Your task to perform on an android device: Go to notification settings Image 0: 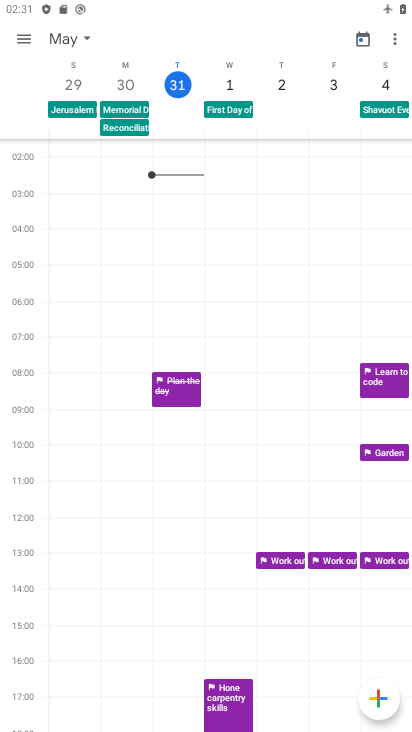
Step 0: press home button
Your task to perform on an android device: Go to notification settings Image 1: 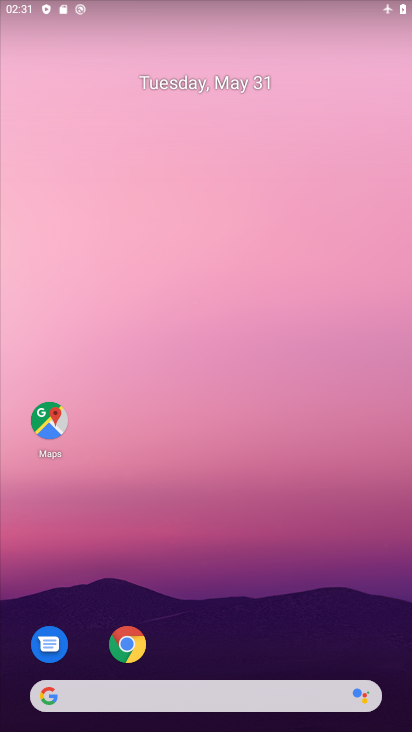
Step 1: drag from (263, 565) to (281, 25)
Your task to perform on an android device: Go to notification settings Image 2: 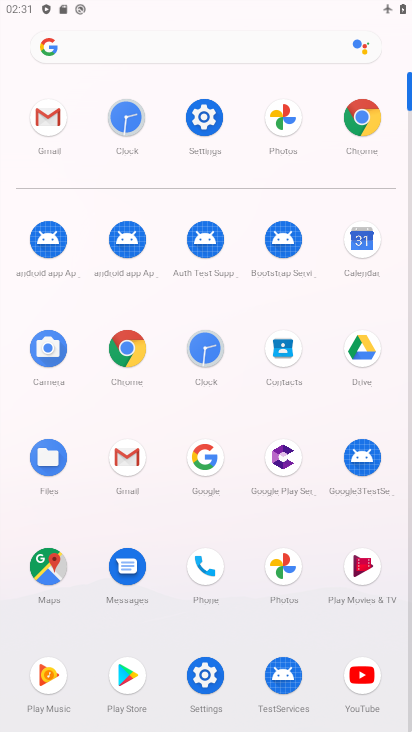
Step 2: click (205, 115)
Your task to perform on an android device: Go to notification settings Image 3: 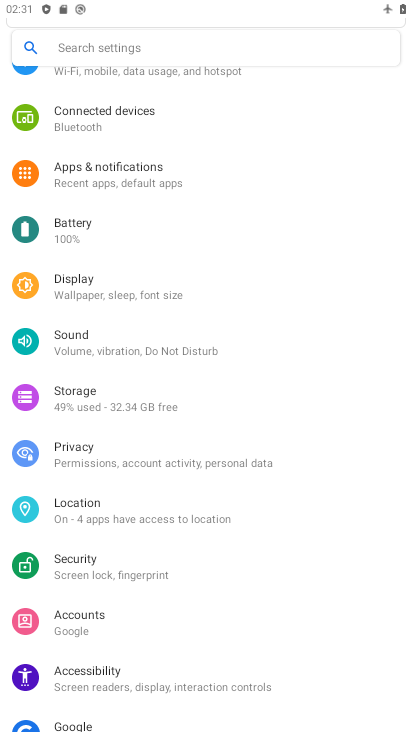
Step 3: click (115, 180)
Your task to perform on an android device: Go to notification settings Image 4: 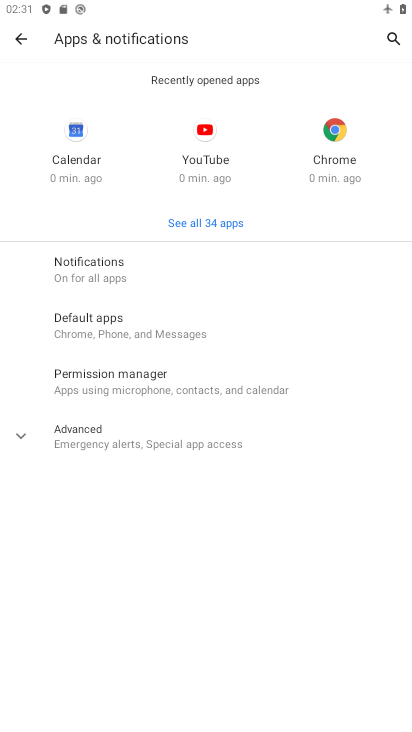
Step 4: click (130, 268)
Your task to perform on an android device: Go to notification settings Image 5: 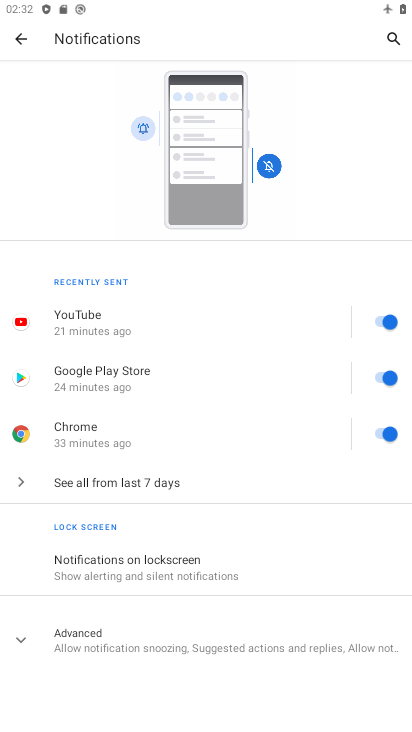
Step 5: task complete